Your task to perform on an android device: Go to accessibility settings Image 0: 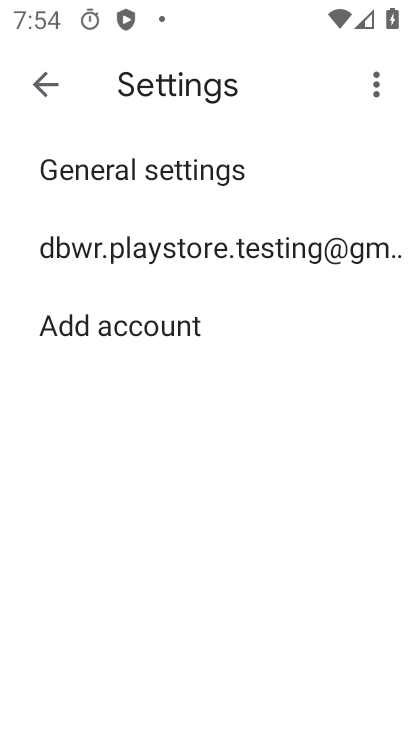
Step 0: press home button
Your task to perform on an android device: Go to accessibility settings Image 1: 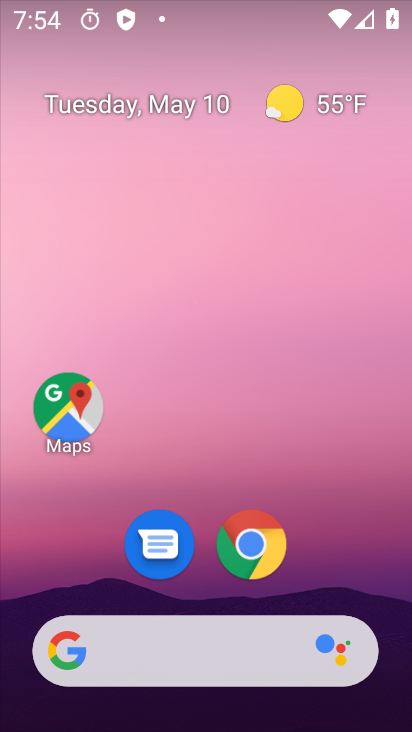
Step 1: drag from (232, 611) to (229, 165)
Your task to perform on an android device: Go to accessibility settings Image 2: 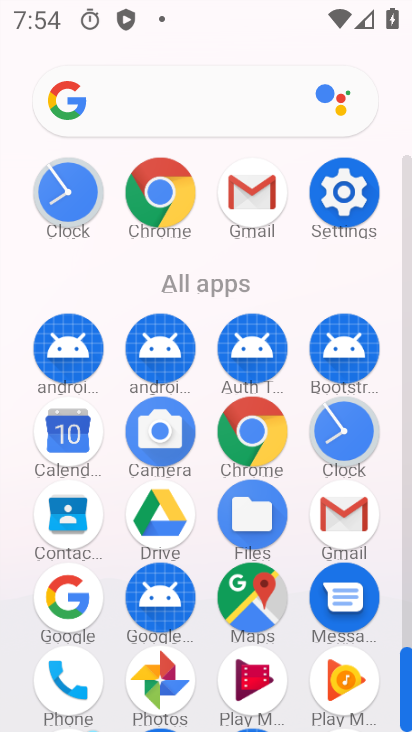
Step 2: click (330, 201)
Your task to perform on an android device: Go to accessibility settings Image 3: 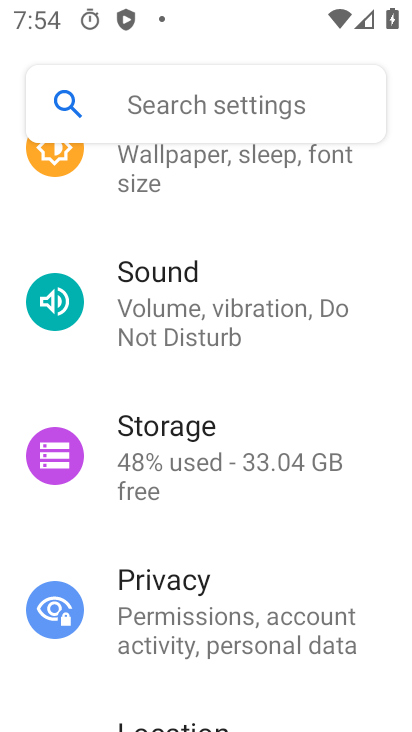
Step 3: drag from (187, 675) to (224, 248)
Your task to perform on an android device: Go to accessibility settings Image 4: 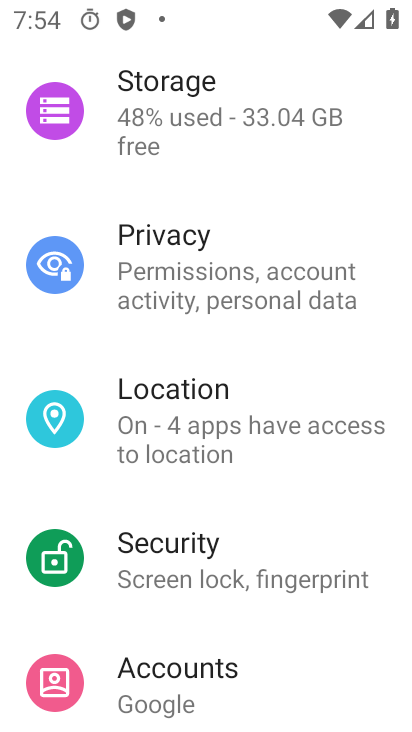
Step 4: drag from (199, 707) to (213, 279)
Your task to perform on an android device: Go to accessibility settings Image 5: 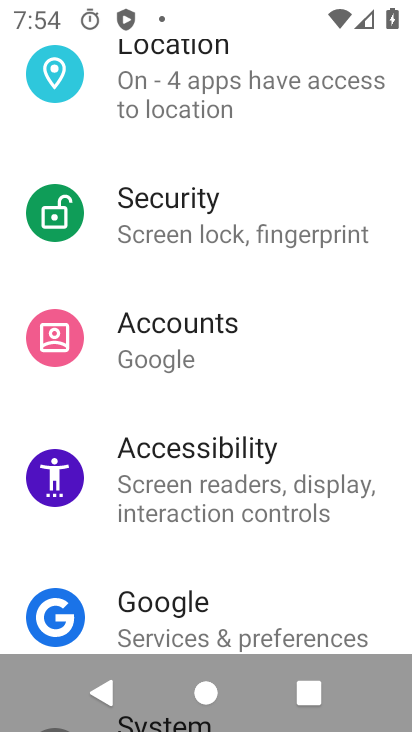
Step 5: click (206, 490)
Your task to perform on an android device: Go to accessibility settings Image 6: 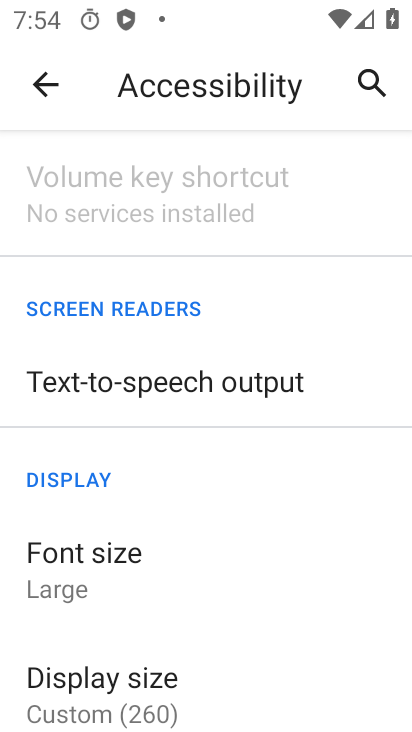
Step 6: task complete